Your task to perform on an android device: Search for hotels in Las Vegas Image 0: 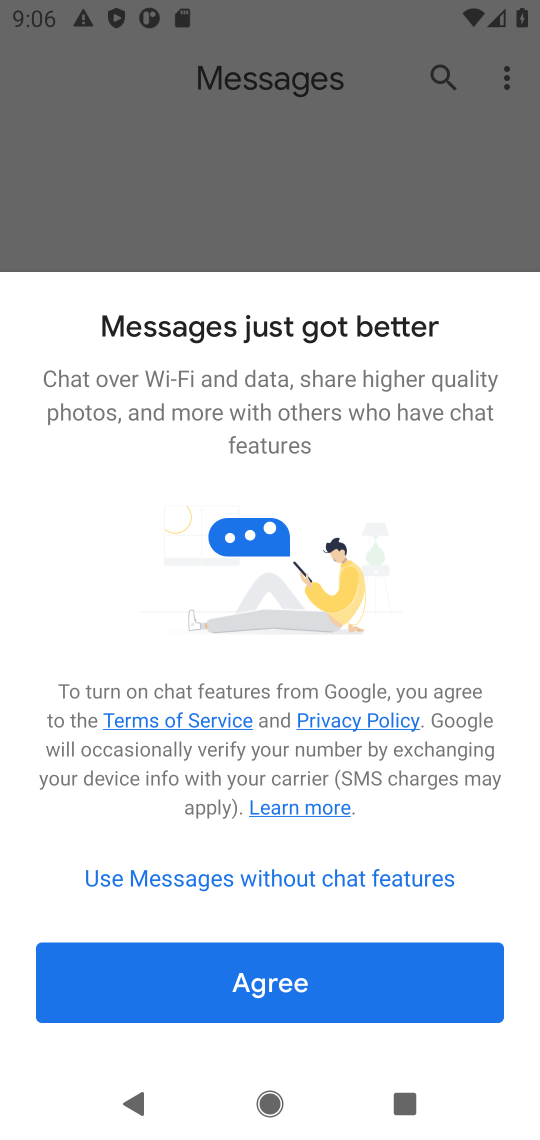
Step 0: press home button
Your task to perform on an android device: Search for hotels in Las Vegas Image 1: 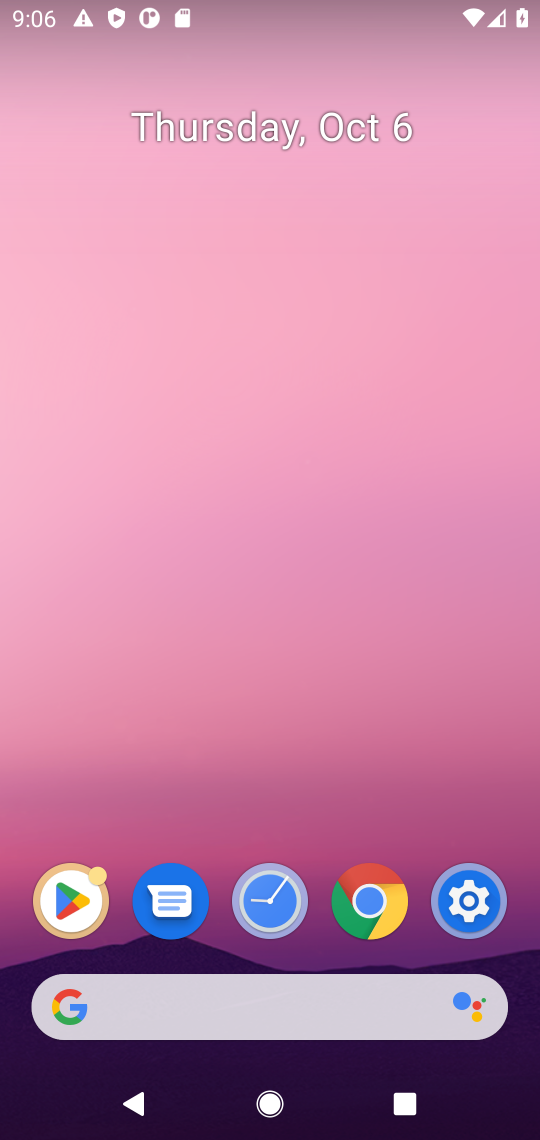
Step 1: click (135, 999)
Your task to perform on an android device: Search for hotels in Las Vegas Image 2: 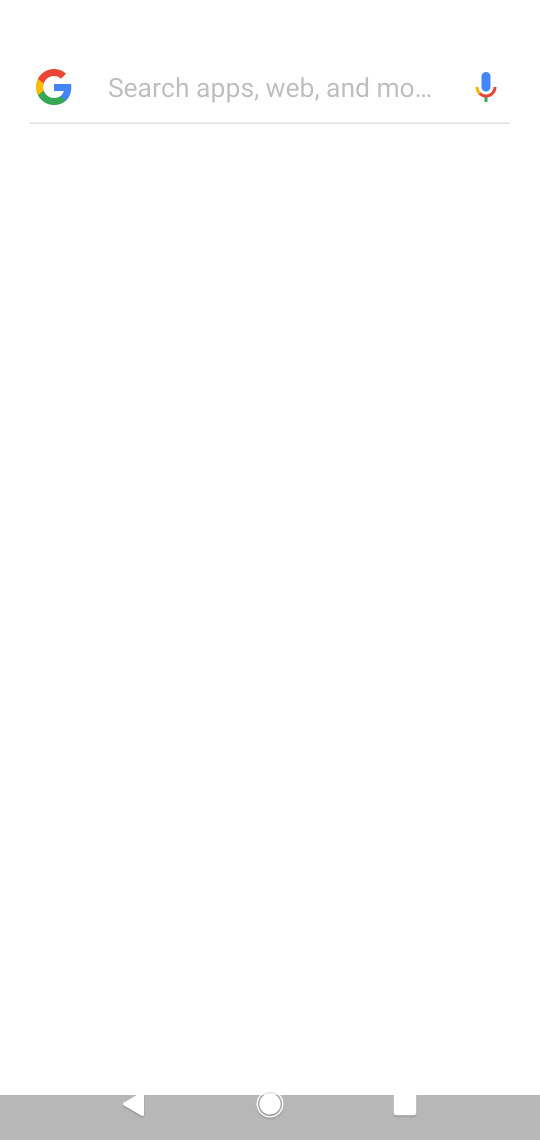
Step 2: click (189, 85)
Your task to perform on an android device: Search for hotels in Las Vegas Image 3: 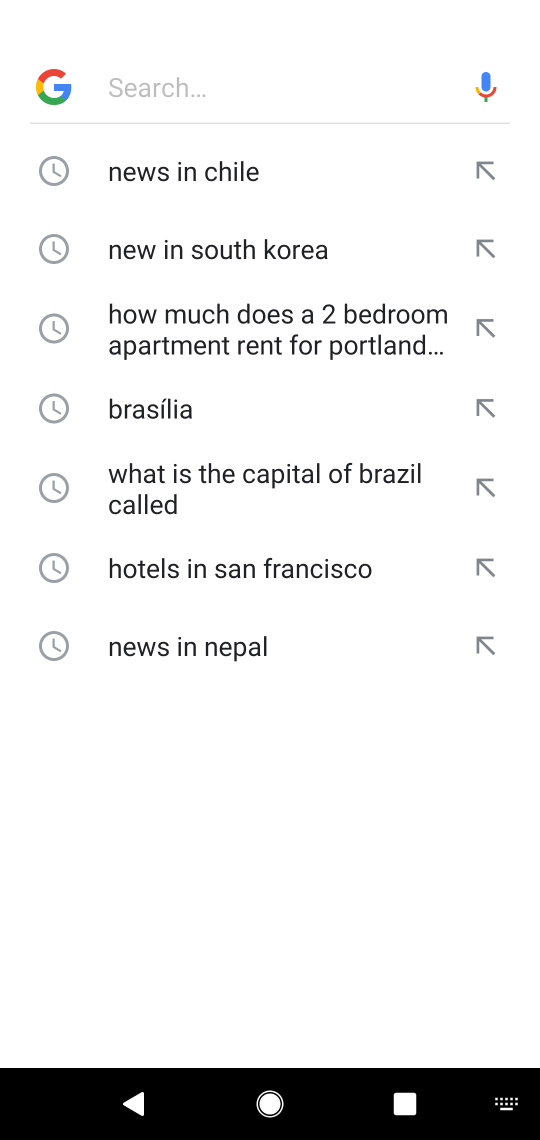
Step 3: type "hotels in las vegas"
Your task to perform on an android device: Search for hotels in Las Vegas Image 4: 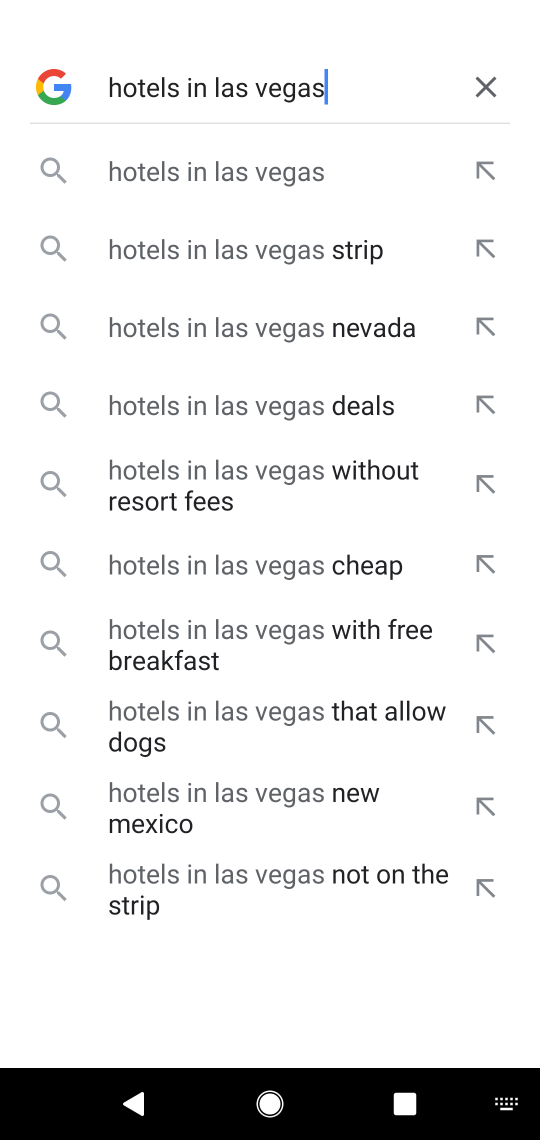
Step 4: click (312, 165)
Your task to perform on an android device: Search for hotels in Las Vegas Image 5: 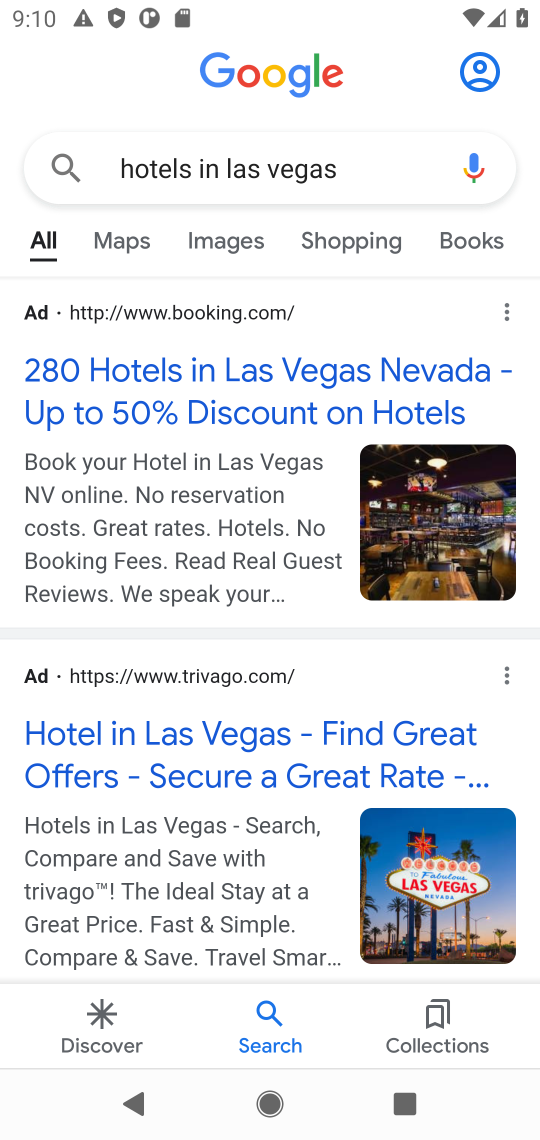
Step 5: task complete